Your task to perform on an android device: Open Google Chrome and click the shortcut for Amazon.com Image 0: 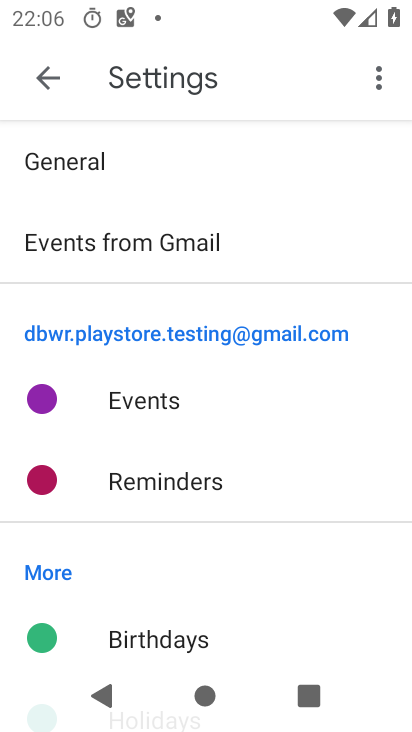
Step 0: drag from (228, 616) to (300, 361)
Your task to perform on an android device: Open Google Chrome and click the shortcut for Amazon.com Image 1: 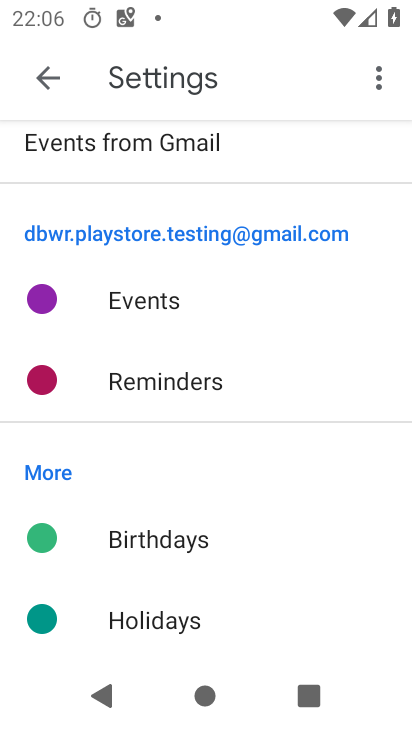
Step 1: press home button
Your task to perform on an android device: Open Google Chrome and click the shortcut for Amazon.com Image 2: 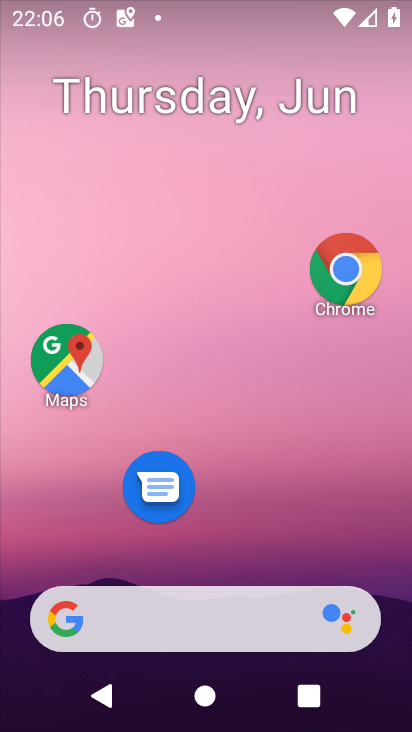
Step 2: drag from (187, 563) to (305, 78)
Your task to perform on an android device: Open Google Chrome and click the shortcut for Amazon.com Image 3: 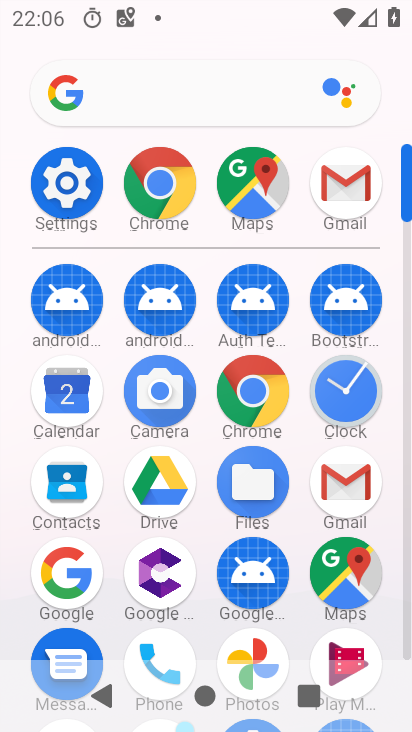
Step 3: click (250, 397)
Your task to perform on an android device: Open Google Chrome and click the shortcut for Amazon.com Image 4: 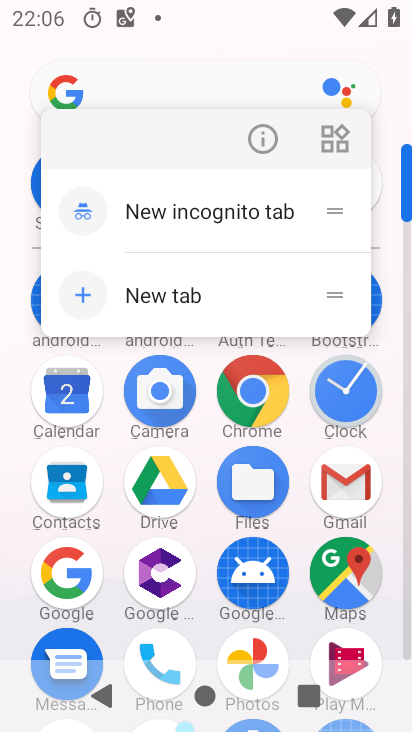
Step 4: click (258, 136)
Your task to perform on an android device: Open Google Chrome and click the shortcut for Amazon.com Image 5: 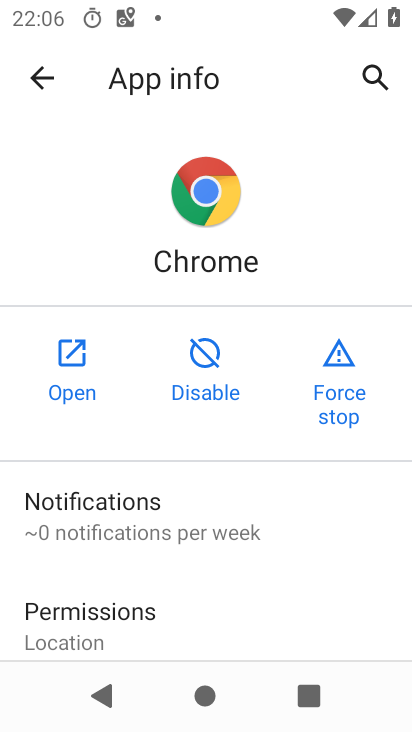
Step 5: click (60, 354)
Your task to perform on an android device: Open Google Chrome and click the shortcut for Amazon.com Image 6: 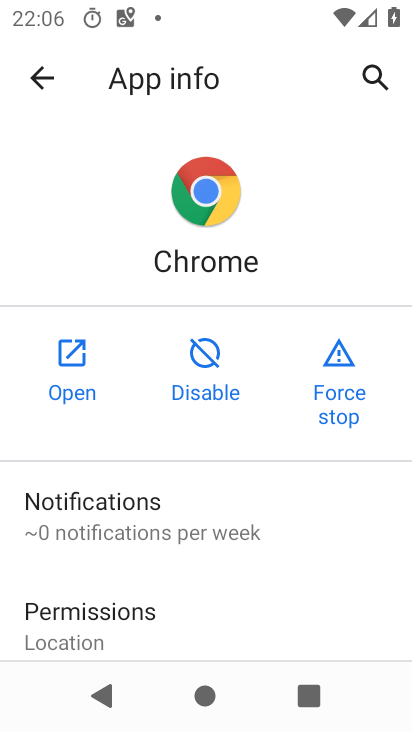
Step 6: click (57, 354)
Your task to perform on an android device: Open Google Chrome and click the shortcut for Amazon.com Image 7: 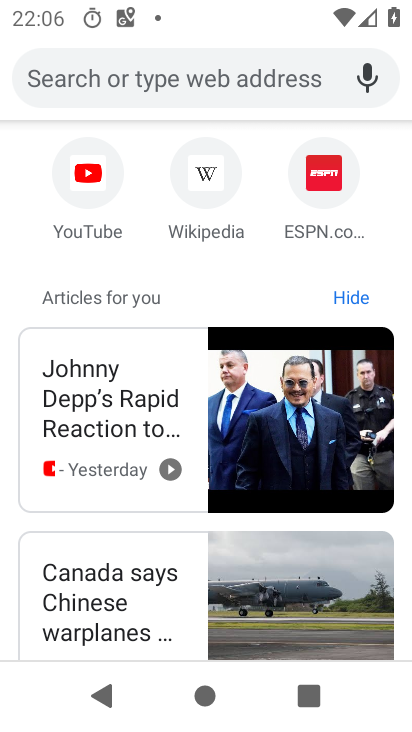
Step 7: drag from (279, 171) to (278, 423)
Your task to perform on an android device: Open Google Chrome and click the shortcut for Amazon.com Image 8: 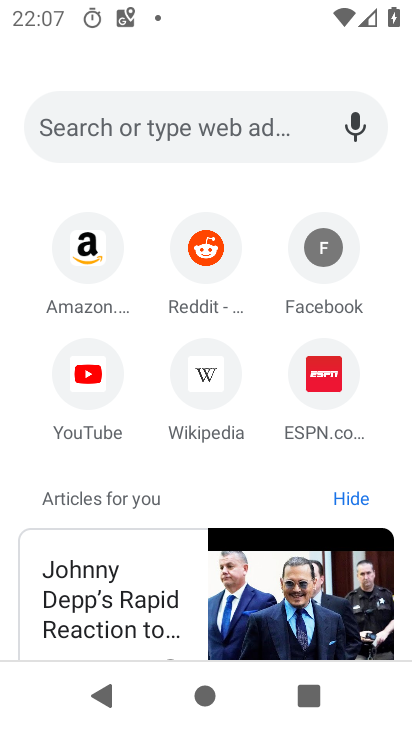
Step 8: click (83, 260)
Your task to perform on an android device: Open Google Chrome and click the shortcut for Amazon.com Image 9: 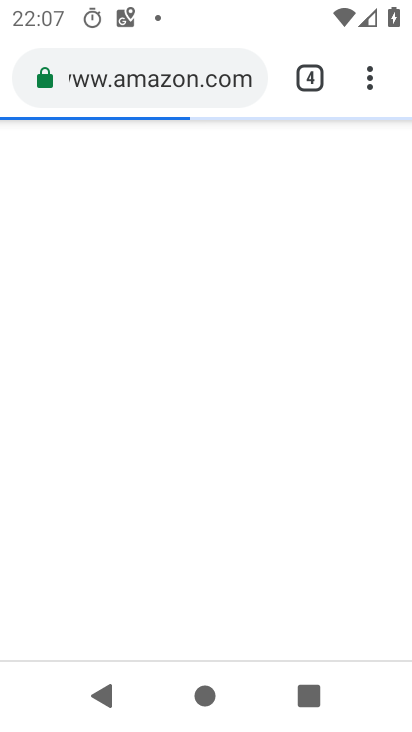
Step 9: task complete